Your task to perform on an android device: Open the web browser Image 0: 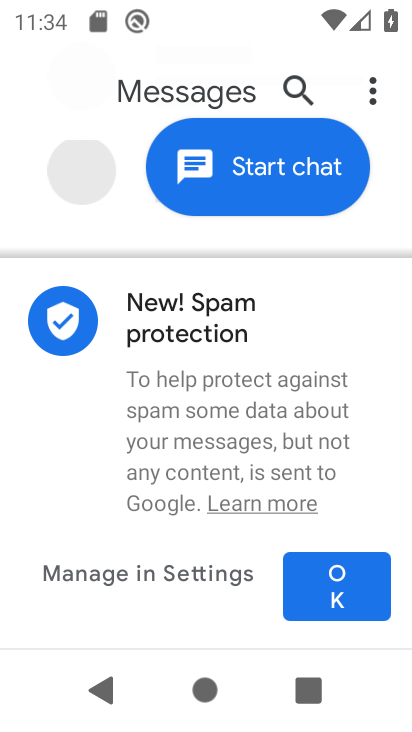
Step 0: press home button
Your task to perform on an android device: Open the web browser Image 1: 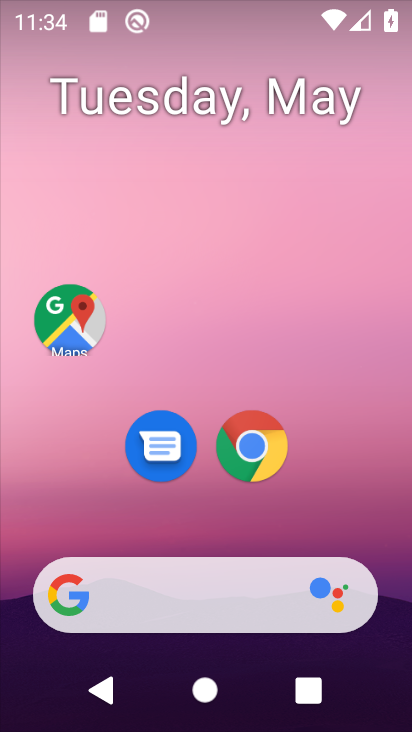
Step 1: drag from (324, 516) to (303, 127)
Your task to perform on an android device: Open the web browser Image 2: 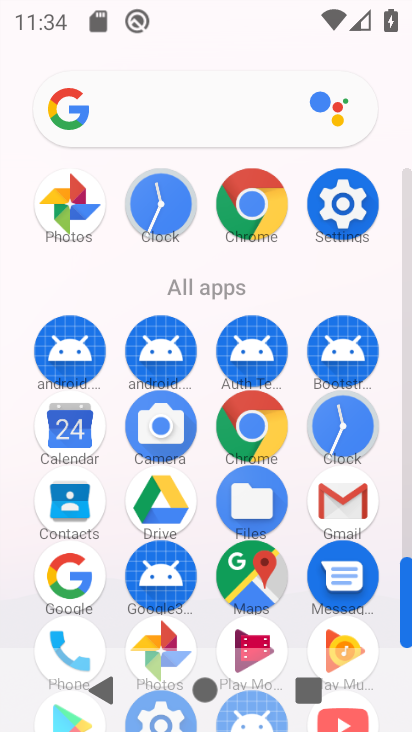
Step 2: drag from (401, 612) to (401, 673)
Your task to perform on an android device: Open the web browser Image 3: 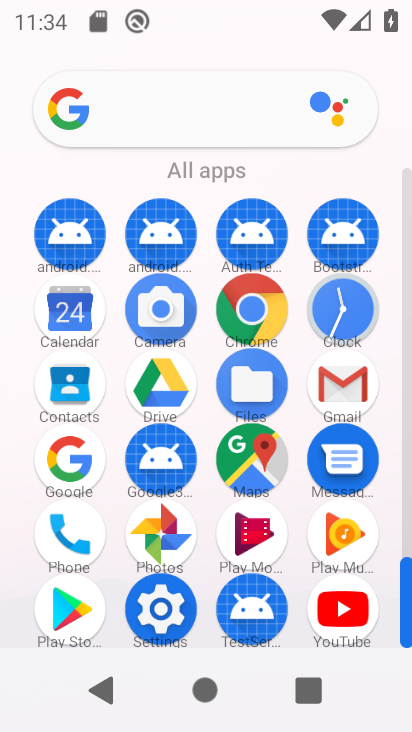
Step 3: click (237, 311)
Your task to perform on an android device: Open the web browser Image 4: 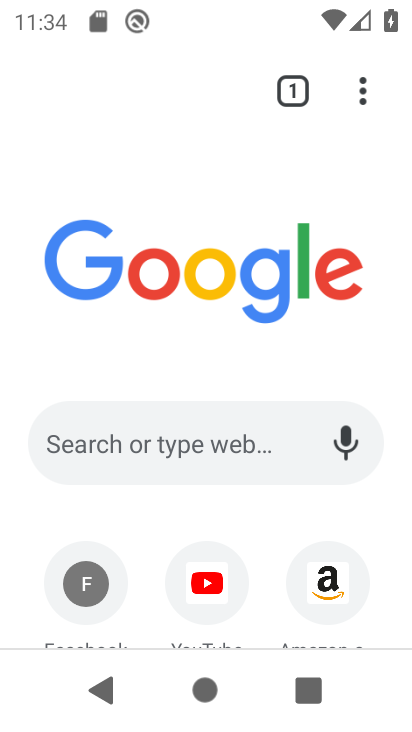
Step 4: click (181, 424)
Your task to perform on an android device: Open the web browser Image 5: 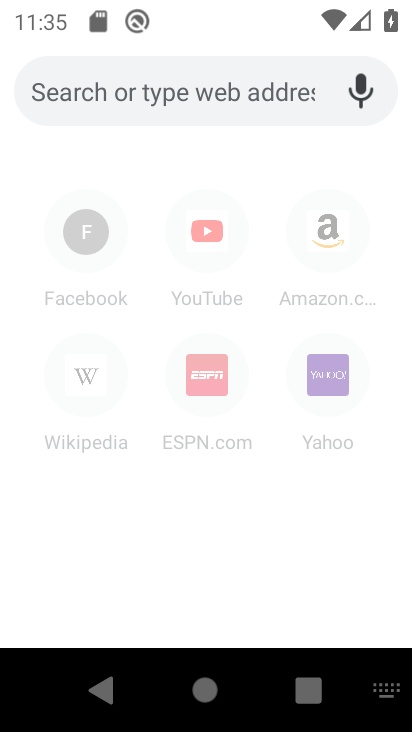
Step 5: type "web browser"
Your task to perform on an android device: Open the web browser Image 6: 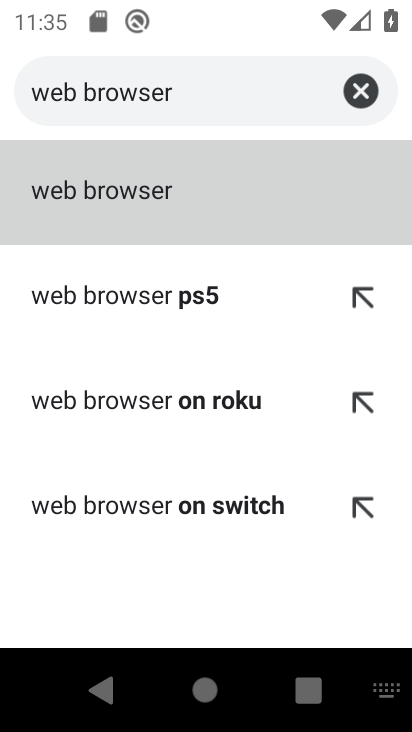
Step 6: click (135, 205)
Your task to perform on an android device: Open the web browser Image 7: 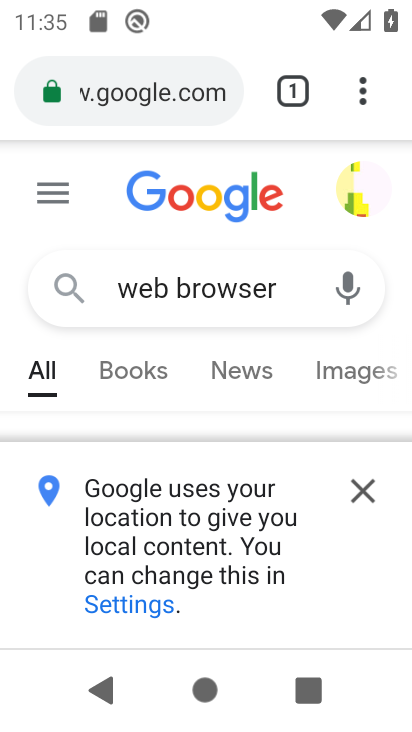
Step 7: click (355, 482)
Your task to perform on an android device: Open the web browser Image 8: 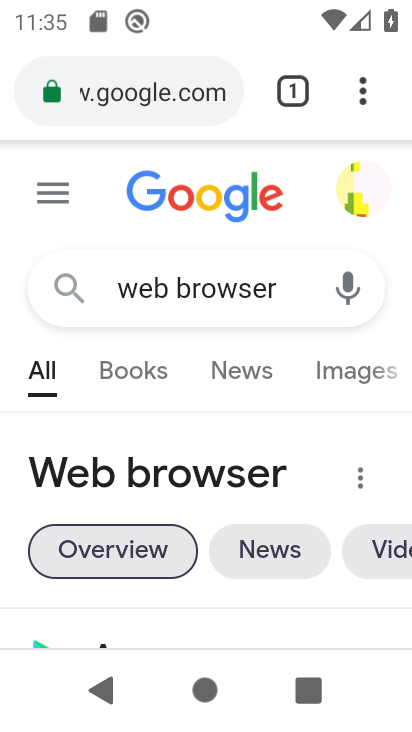
Step 8: task complete